Your task to perform on an android device: Open Google Image 0: 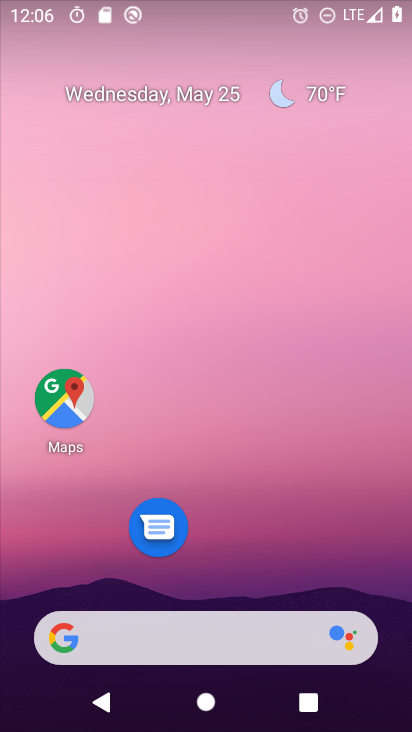
Step 0: drag from (237, 539) to (274, 121)
Your task to perform on an android device: Open Google Image 1: 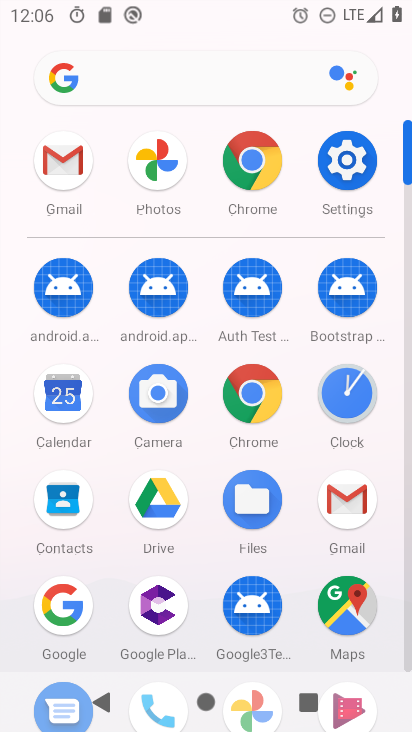
Step 1: click (63, 608)
Your task to perform on an android device: Open Google Image 2: 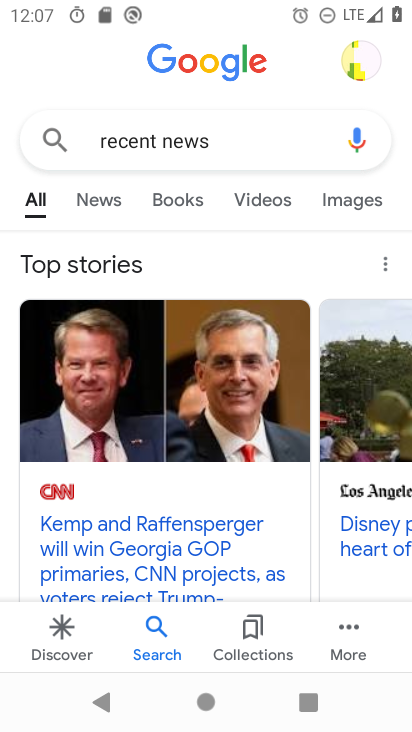
Step 2: task complete